Your task to perform on an android device: See recent photos Image 0: 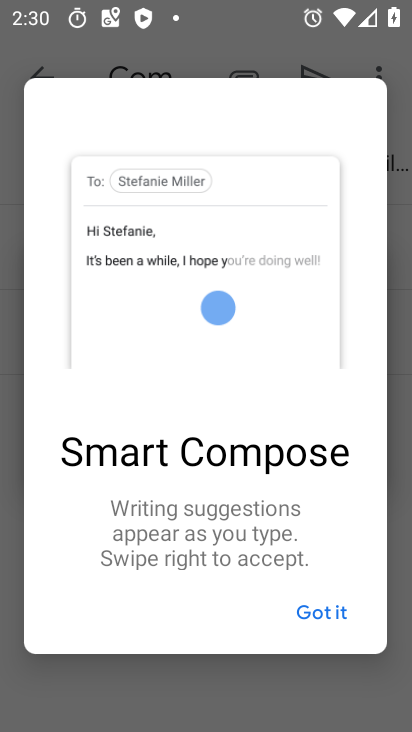
Step 0: press home button
Your task to perform on an android device: See recent photos Image 1: 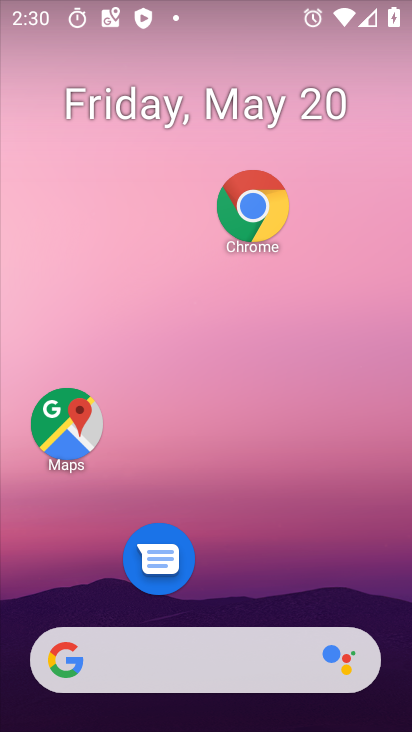
Step 1: drag from (215, 599) to (171, 6)
Your task to perform on an android device: See recent photos Image 2: 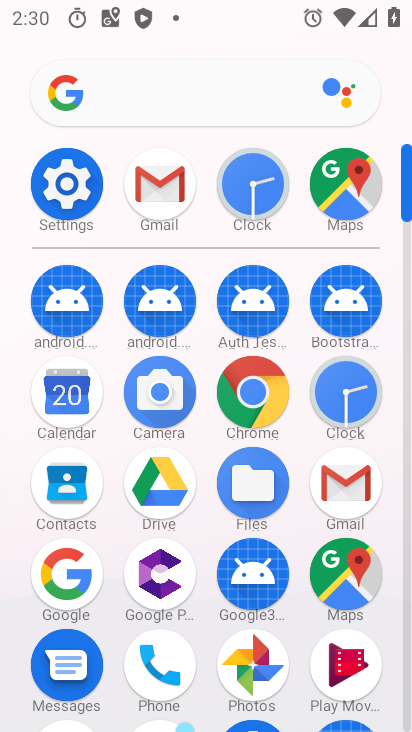
Step 2: click (263, 662)
Your task to perform on an android device: See recent photos Image 3: 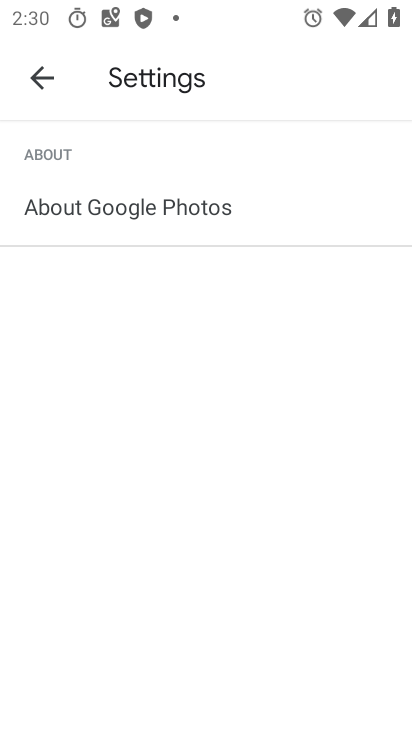
Step 3: click (42, 102)
Your task to perform on an android device: See recent photos Image 4: 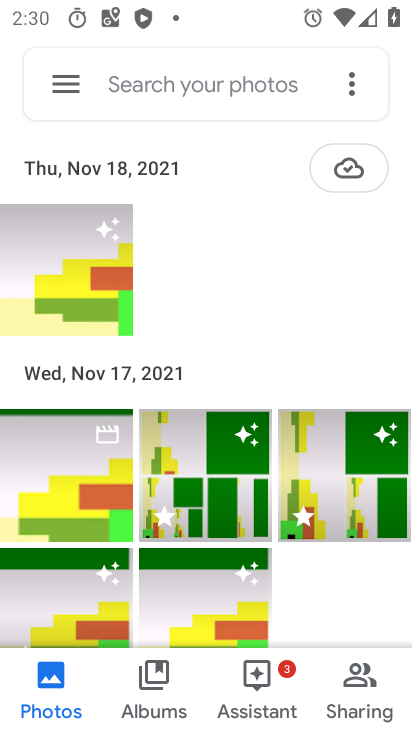
Step 4: task complete